Your task to perform on an android device: Do I have any events this weekend? Image 0: 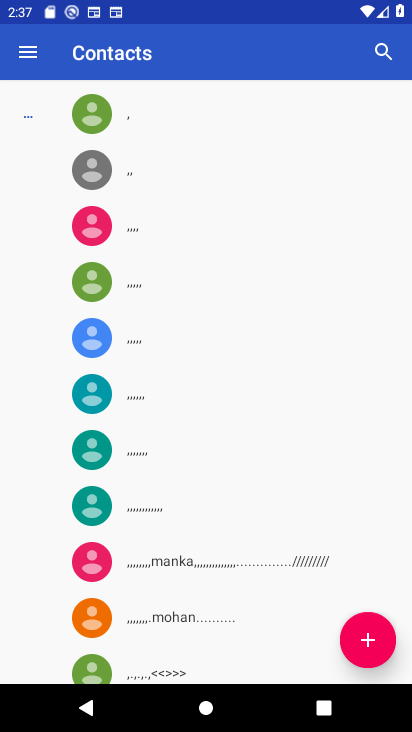
Step 0: press home button
Your task to perform on an android device: Do I have any events this weekend? Image 1: 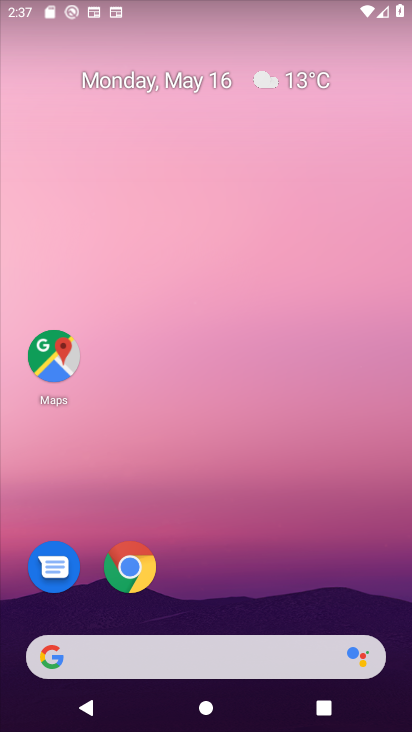
Step 1: drag from (214, 529) to (191, 37)
Your task to perform on an android device: Do I have any events this weekend? Image 2: 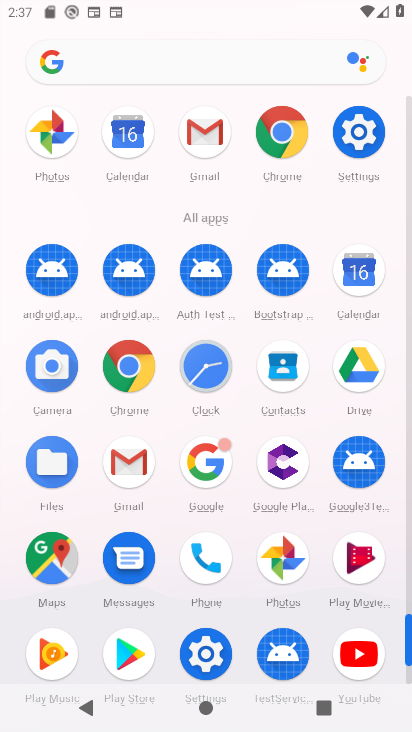
Step 2: click (364, 271)
Your task to perform on an android device: Do I have any events this weekend? Image 3: 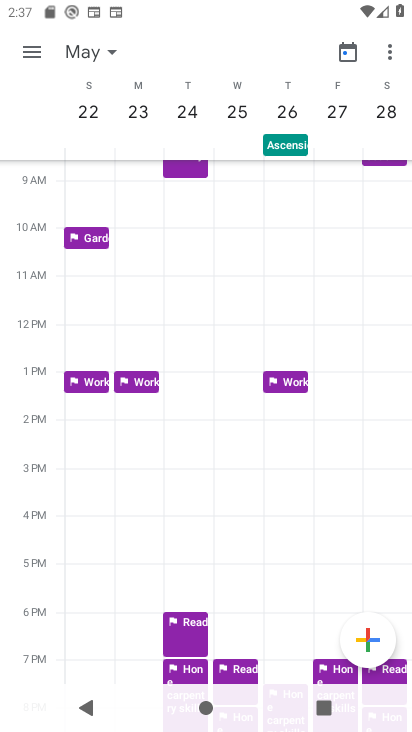
Step 3: click (38, 71)
Your task to perform on an android device: Do I have any events this weekend? Image 4: 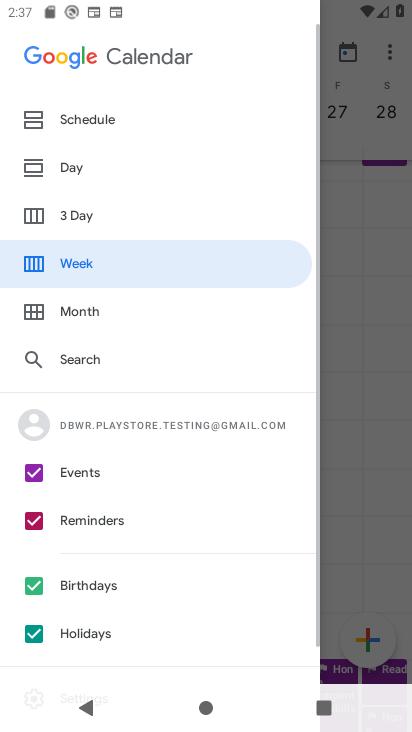
Step 4: click (78, 216)
Your task to perform on an android device: Do I have any events this weekend? Image 5: 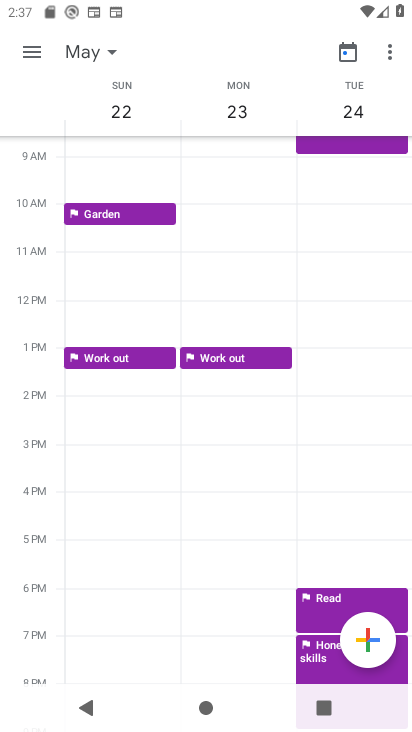
Step 5: click (100, 43)
Your task to perform on an android device: Do I have any events this weekend? Image 6: 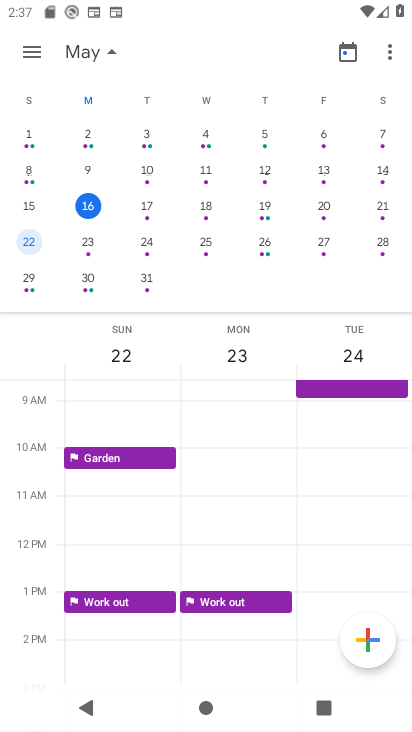
Step 6: click (328, 206)
Your task to perform on an android device: Do I have any events this weekend? Image 7: 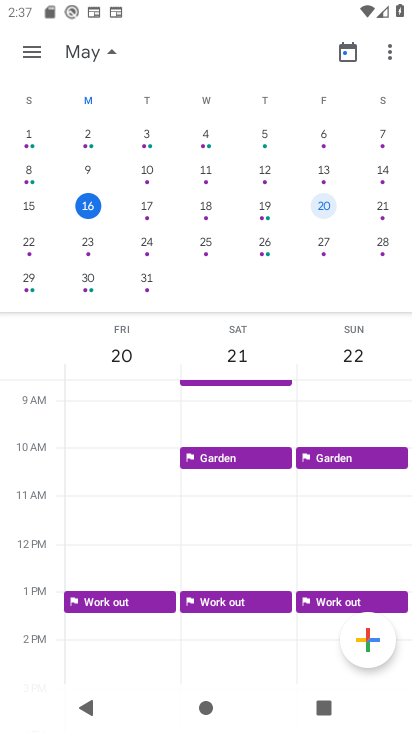
Step 7: task complete